Your task to perform on an android device: Open calendar and show me the second week of next month Image 0: 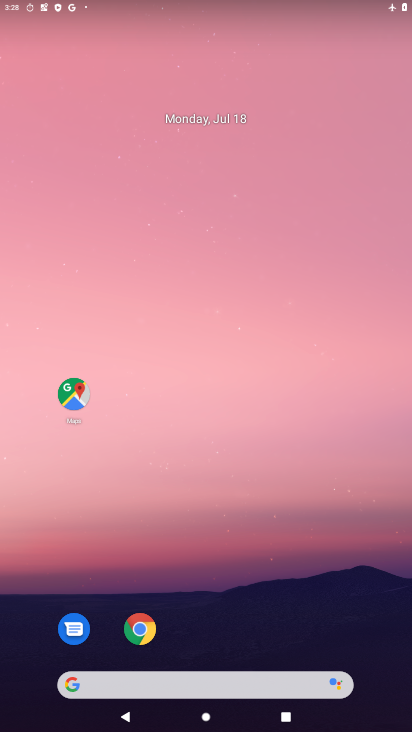
Step 0: click (244, 371)
Your task to perform on an android device: Open calendar and show me the second week of next month Image 1: 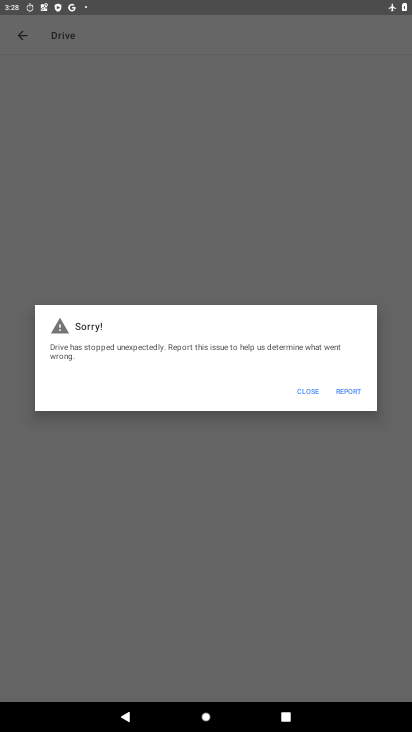
Step 1: press home button
Your task to perform on an android device: Open calendar and show me the second week of next month Image 2: 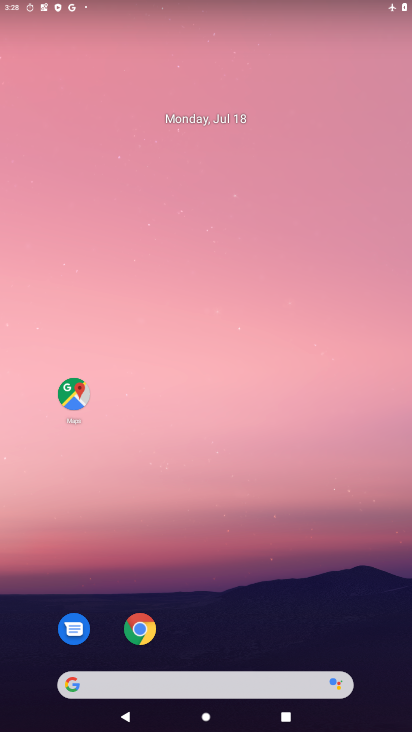
Step 2: drag from (267, 640) to (282, 0)
Your task to perform on an android device: Open calendar and show me the second week of next month Image 3: 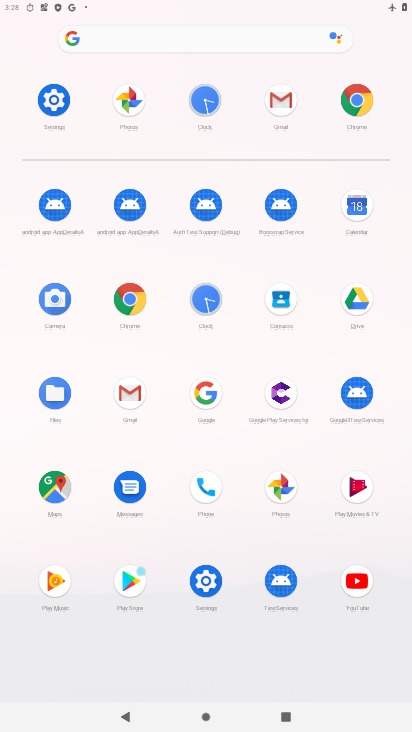
Step 3: click (351, 248)
Your task to perform on an android device: Open calendar and show me the second week of next month Image 4: 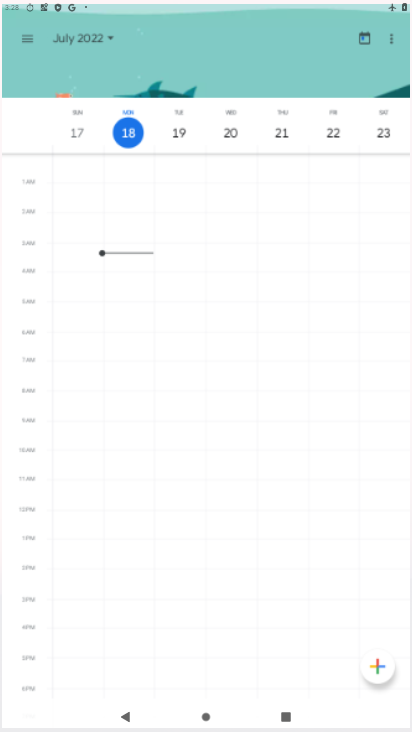
Step 4: click (351, 208)
Your task to perform on an android device: Open calendar and show me the second week of next month Image 5: 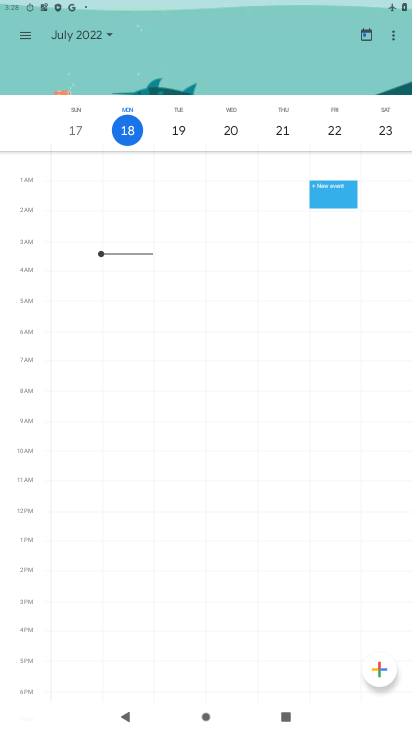
Step 5: click (363, 29)
Your task to perform on an android device: Open calendar and show me the second week of next month Image 6: 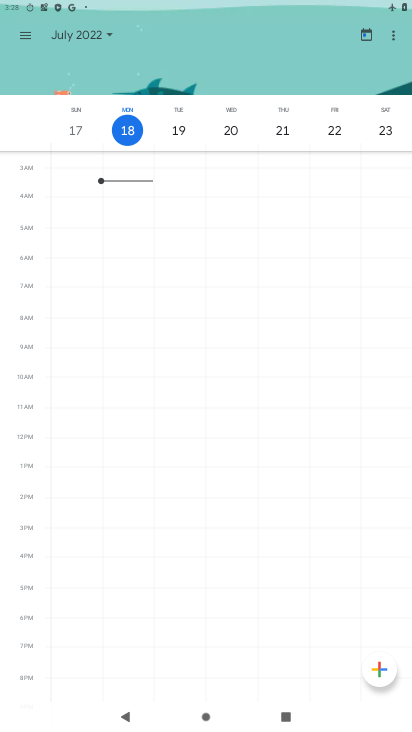
Step 6: click (362, 30)
Your task to perform on an android device: Open calendar and show me the second week of next month Image 7: 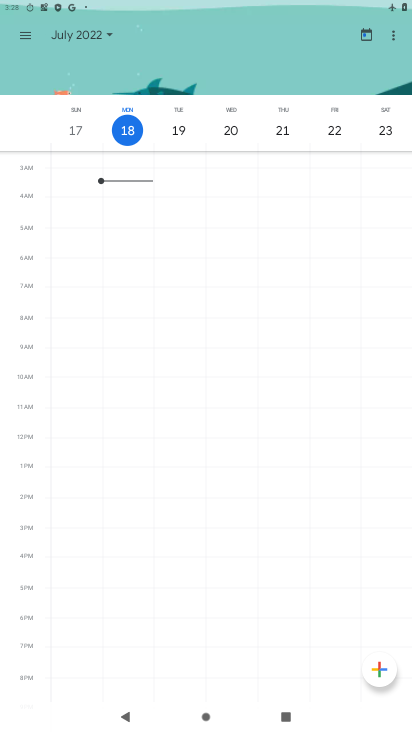
Step 7: click (364, 36)
Your task to perform on an android device: Open calendar and show me the second week of next month Image 8: 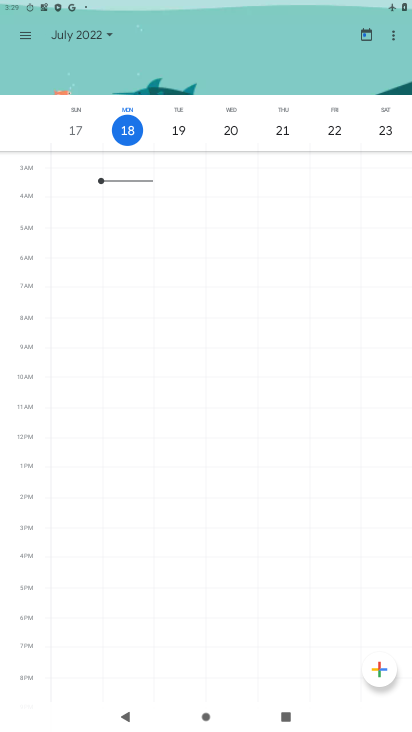
Step 8: task complete